Your task to perform on an android device: toggle wifi Image 0: 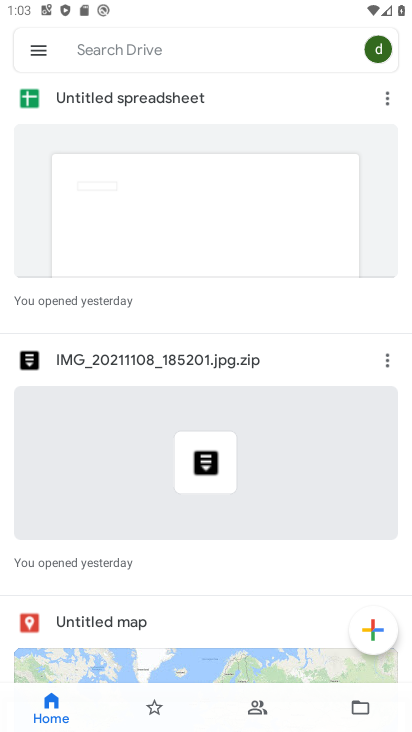
Step 0: drag from (360, 2) to (360, 420)
Your task to perform on an android device: toggle wifi Image 1: 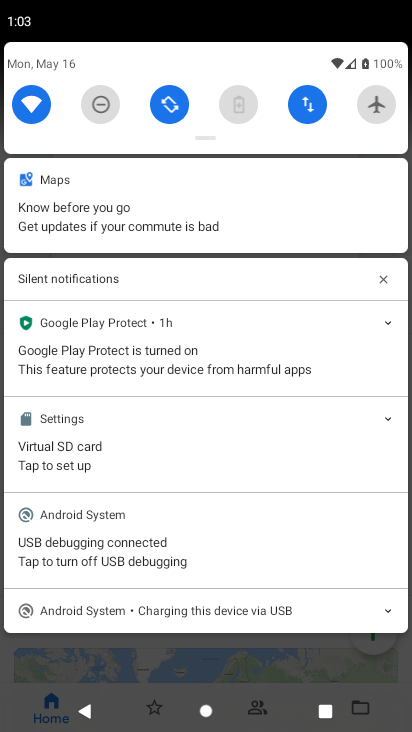
Step 1: click (16, 102)
Your task to perform on an android device: toggle wifi Image 2: 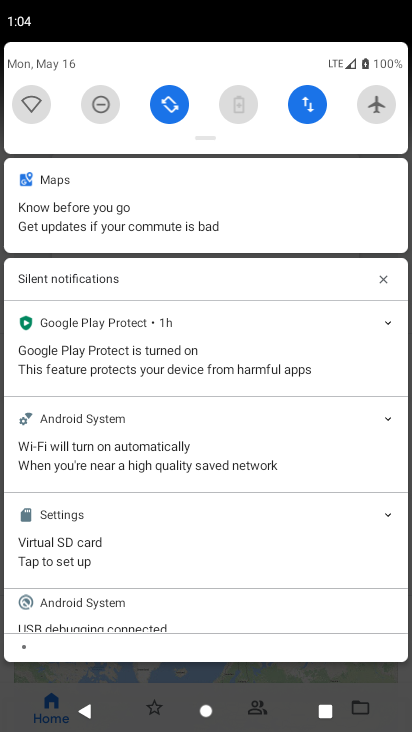
Step 2: task complete